Your task to perform on an android device: show emergency info Image 0: 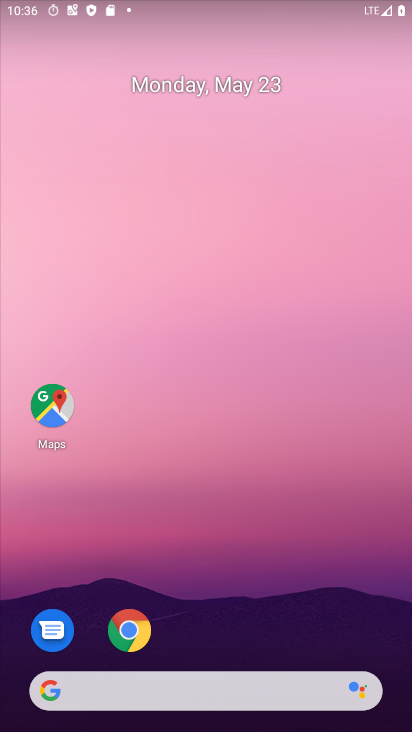
Step 0: drag from (274, 665) to (295, 7)
Your task to perform on an android device: show emergency info Image 1: 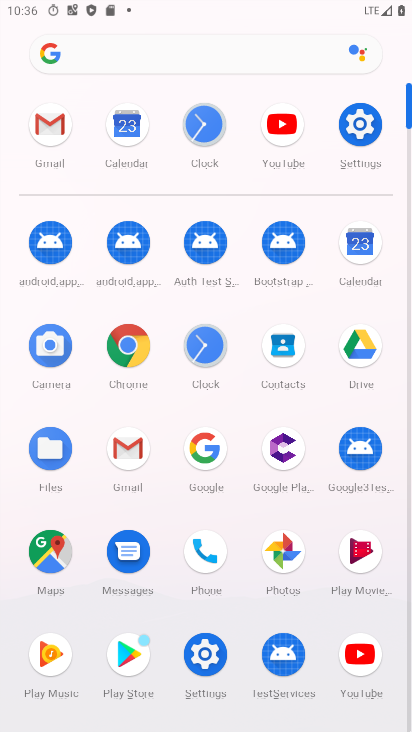
Step 1: click (361, 126)
Your task to perform on an android device: show emergency info Image 2: 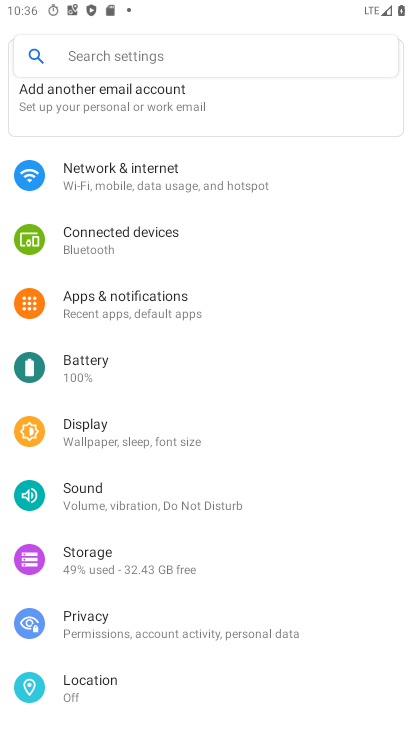
Step 2: drag from (296, 590) to (319, 153)
Your task to perform on an android device: show emergency info Image 3: 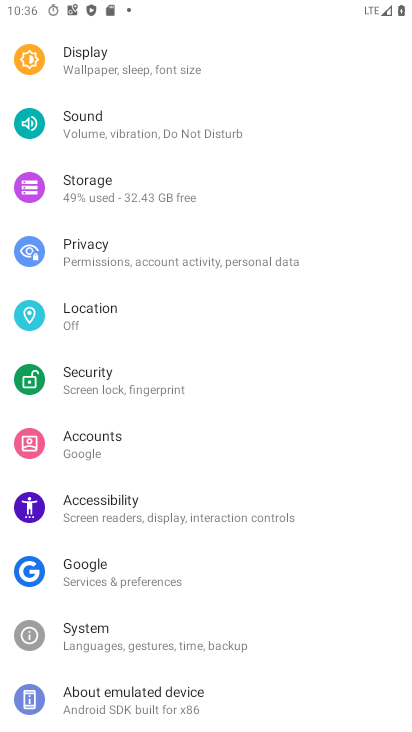
Step 3: drag from (326, 577) to (348, 310)
Your task to perform on an android device: show emergency info Image 4: 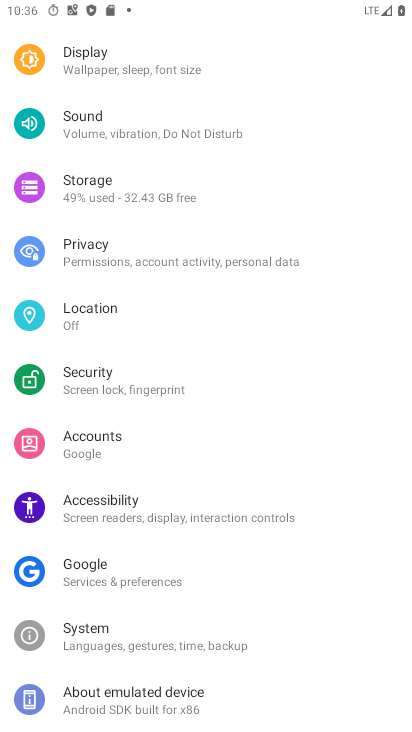
Step 4: click (119, 716)
Your task to perform on an android device: show emergency info Image 5: 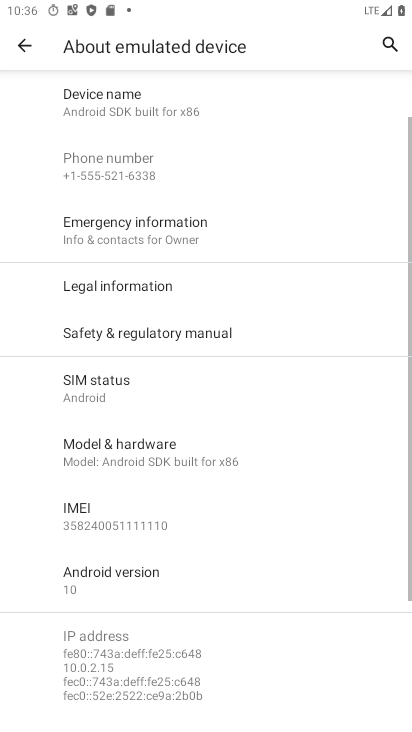
Step 5: click (142, 233)
Your task to perform on an android device: show emergency info Image 6: 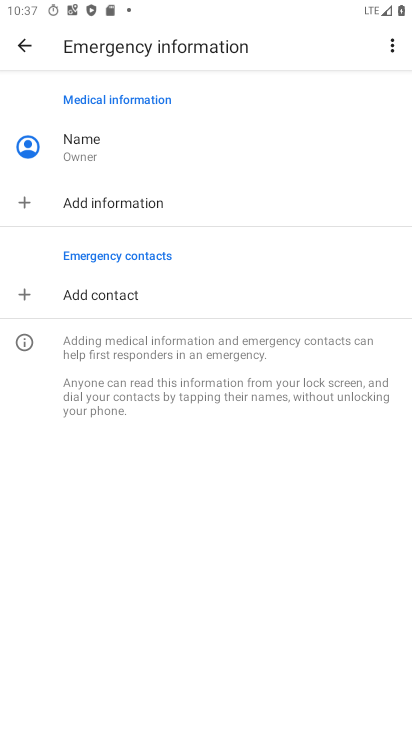
Step 6: task complete